Your task to perform on an android device: turn on sleep mode Image 0: 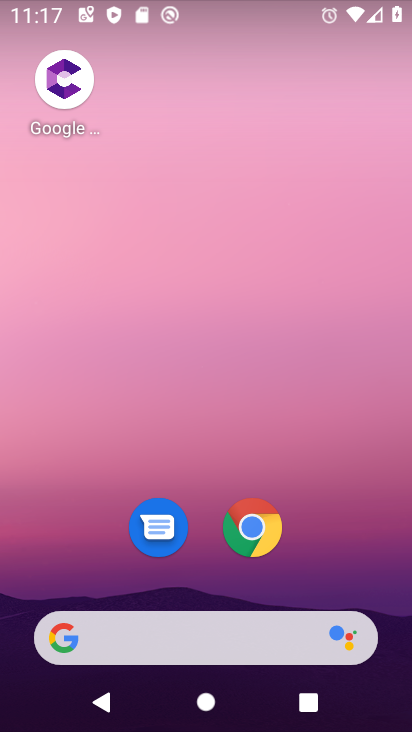
Step 0: drag from (212, 591) to (218, 216)
Your task to perform on an android device: turn on sleep mode Image 1: 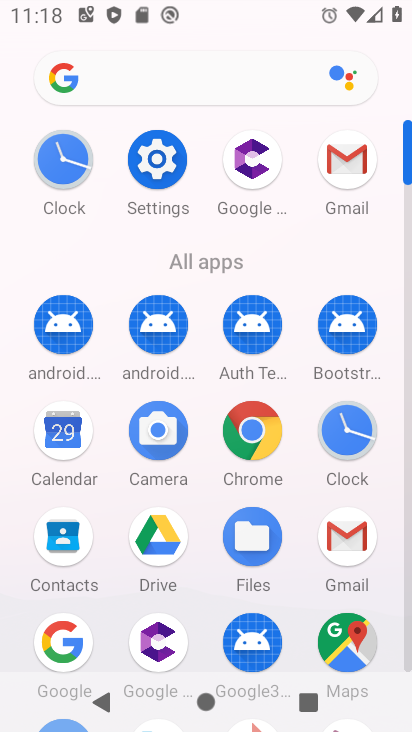
Step 1: click (157, 154)
Your task to perform on an android device: turn on sleep mode Image 2: 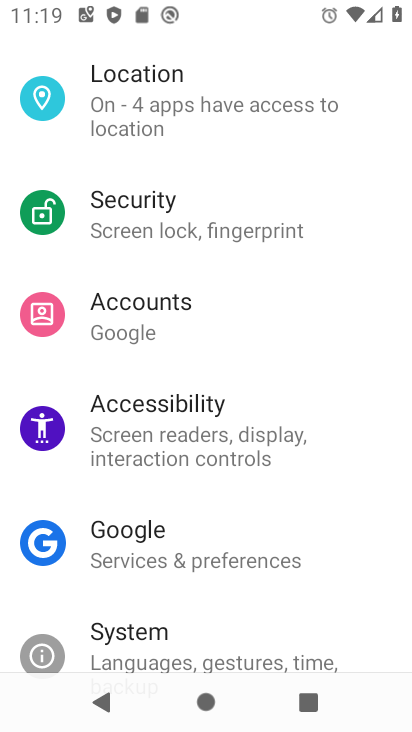
Step 2: task complete